Your task to perform on an android device: read, delete, or share a saved page in the chrome app Image 0: 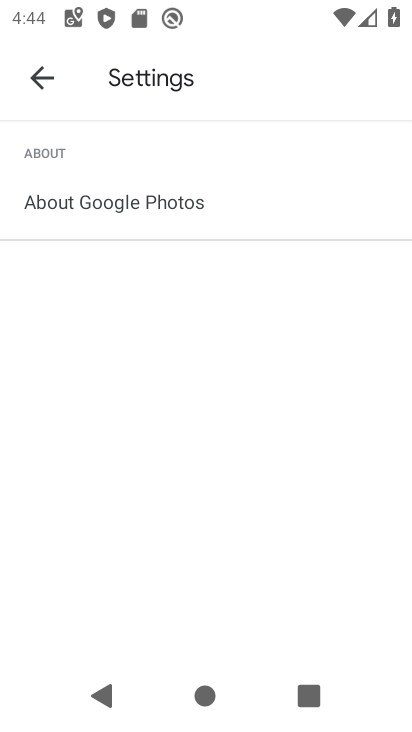
Step 0: press home button
Your task to perform on an android device: read, delete, or share a saved page in the chrome app Image 1: 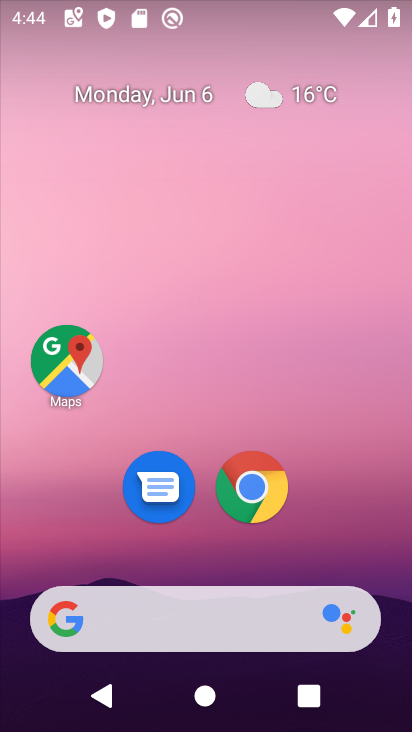
Step 1: drag from (205, 559) to (225, 41)
Your task to perform on an android device: read, delete, or share a saved page in the chrome app Image 2: 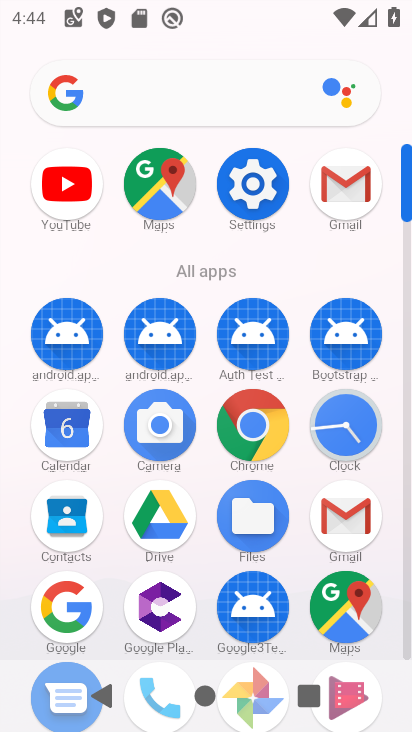
Step 2: click (248, 420)
Your task to perform on an android device: read, delete, or share a saved page in the chrome app Image 3: 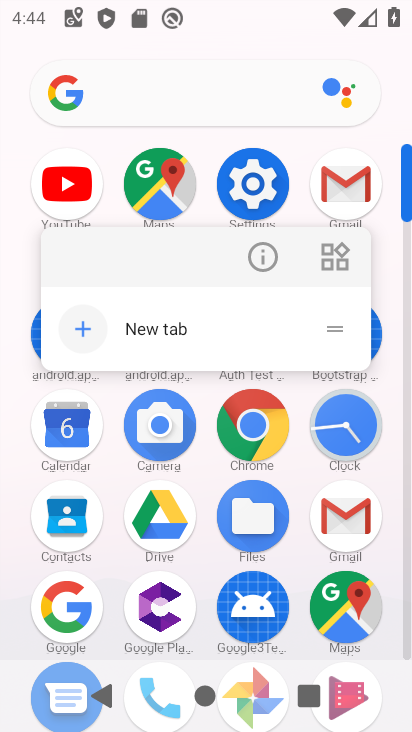
Step 3: click (248, 418)
Your task to perform on an android device: read, delete, or share a saved page in the chrome app Image 4: 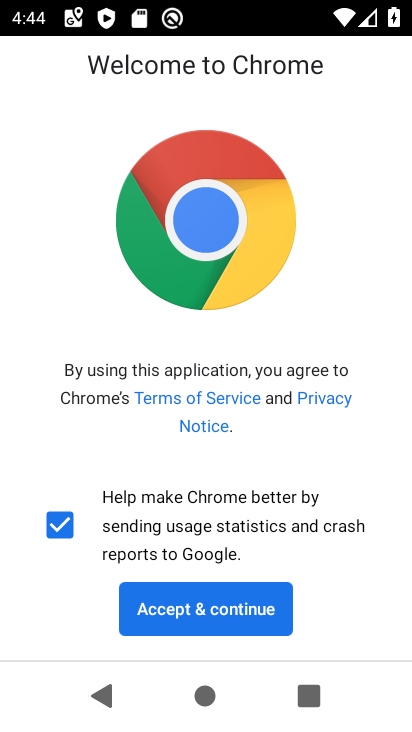
Step 4: click (263, 611)
Your task to perform on an android device: read, delete, or share a saved page in the chrome app Image 5: 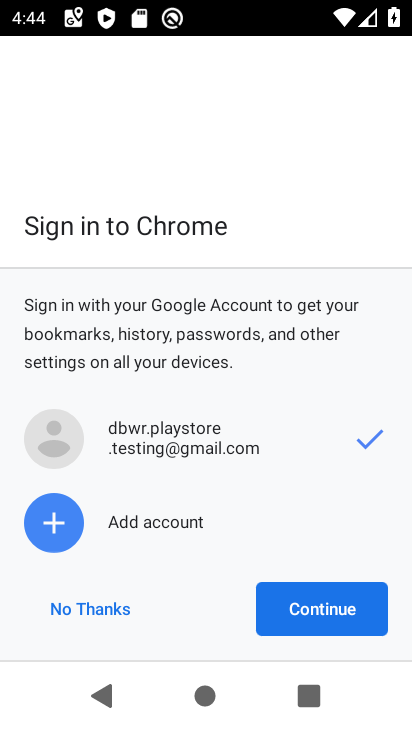
Step 5: click (301, 610)
Your task to perform on an android device: read, delete, or share a saved page in the chrome app Image 6: 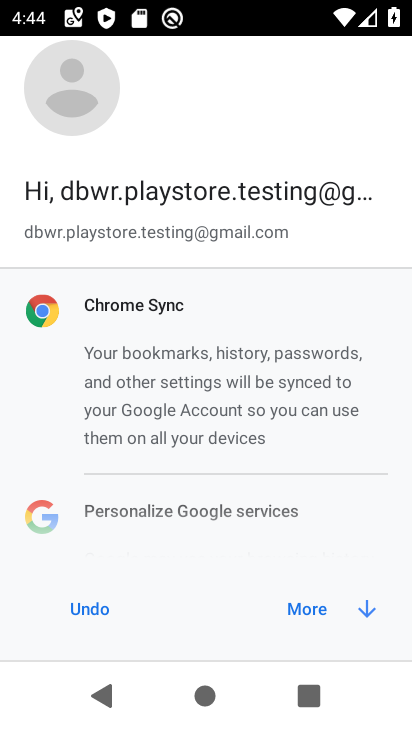
Step 6: click (301, 610)
Your task to perform on an android device: read, delete, or share a saved page in the chrome app Image 7: 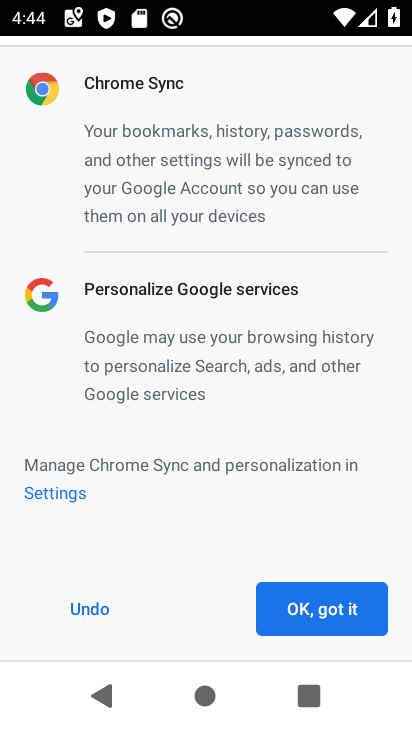
Step 7: click (301, 610)
Your task to perform on an android device: read, delete, or share a saved page in the chrome app Image 8: 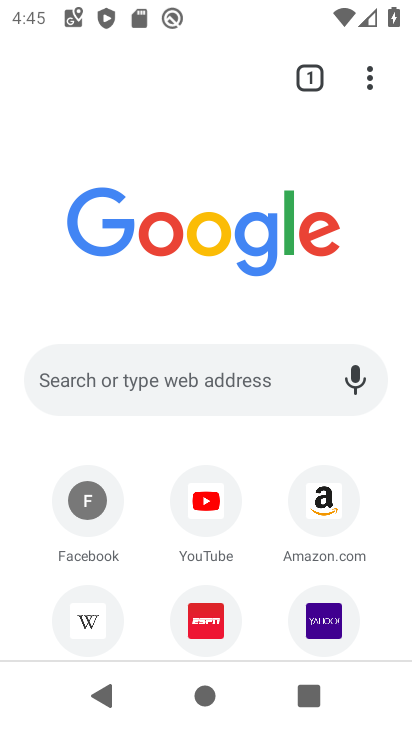
Step 8: click (364, 78)
Your task to perform on an android device: read, delete, or share a saved page in the chrome app Image 9: 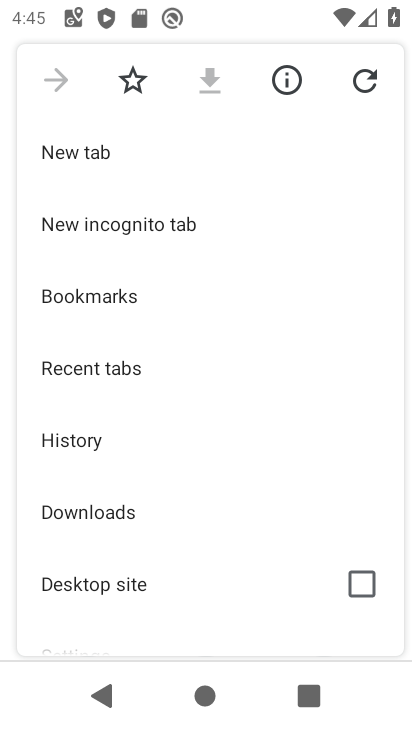
Step 9: click (169, 507)
Your task to perform on an android device: read, delete, or share a saved page in the chrome app Image 10: 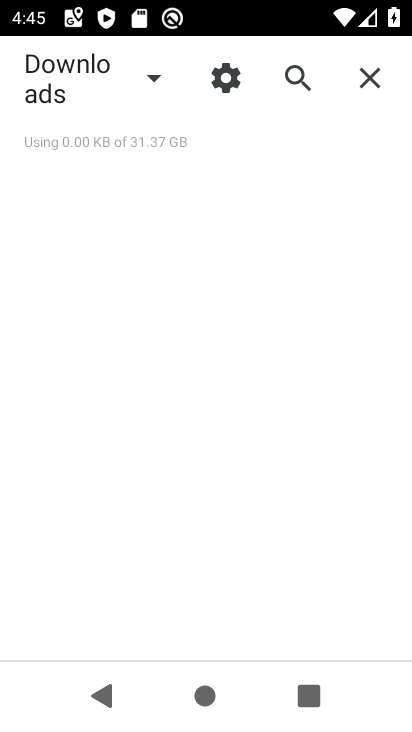
Step 10: task complete